Your task to perform on an android device: turn pop-ups off in chrome Image 0: 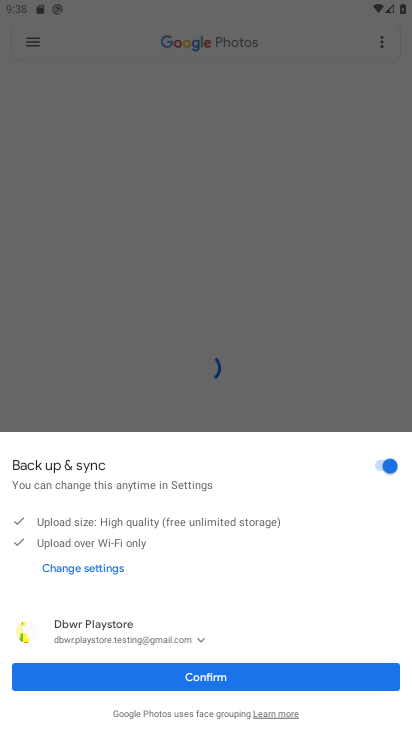
Step 0: press home button
Your task to perform on an android device: turn pop-ups off in chrome Image 1: 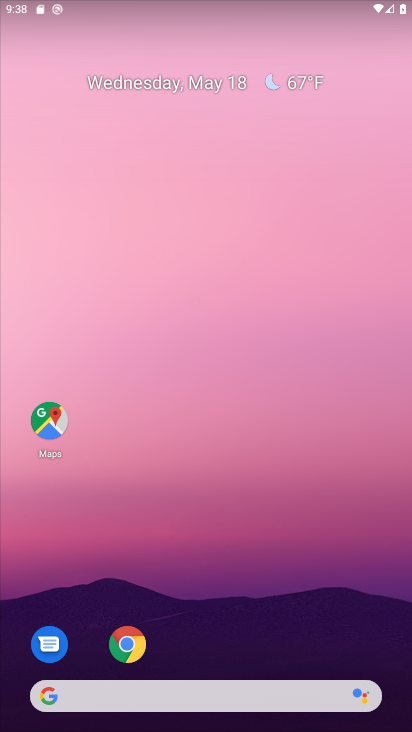
Step 1: click (129, 643)
Your task to perform on an android device: turn pop-ups off in chrome Image 2: 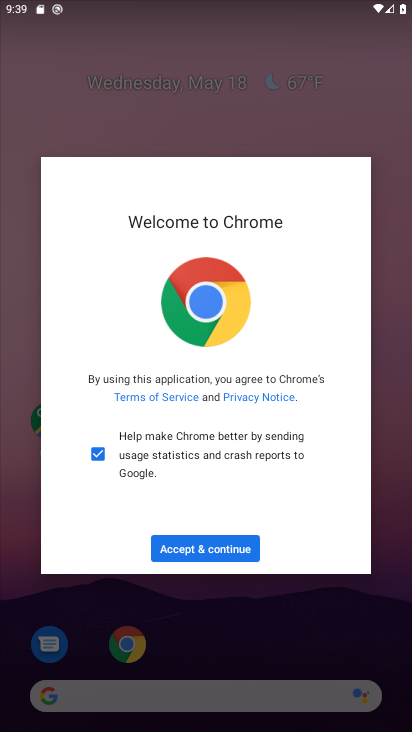
Step 2: click (216, 550)
Your task to perform on an android device: turn pop-ups off in chrome Image 3: 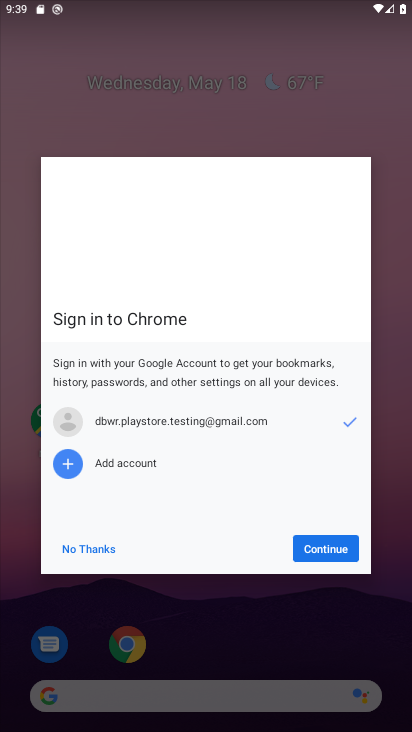
Step 3: click (321, 549)
Your task to perform on an android device: turn pop-ups off in chrome Image 4: 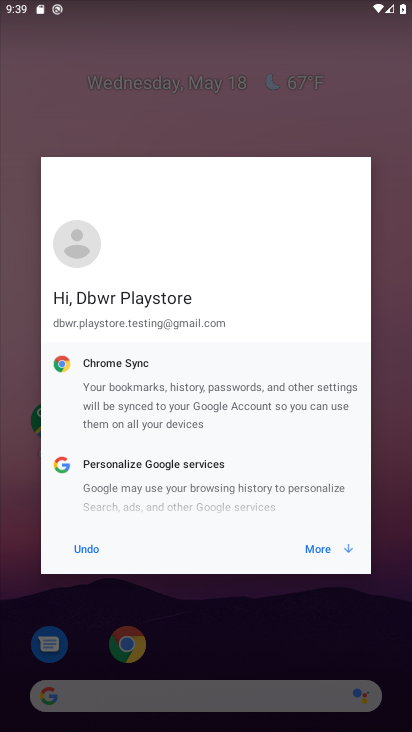
Step 4: click (321, 549)
Your task to perform on an android device: turn pop-ups off in chrome Image 5: 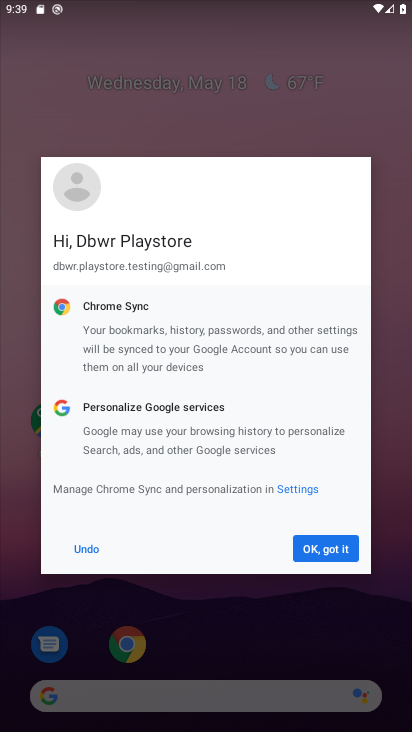
Step 5: click (321, 549)
Your task to perform on an android device: turn pop-ups off in chrome Image 6: 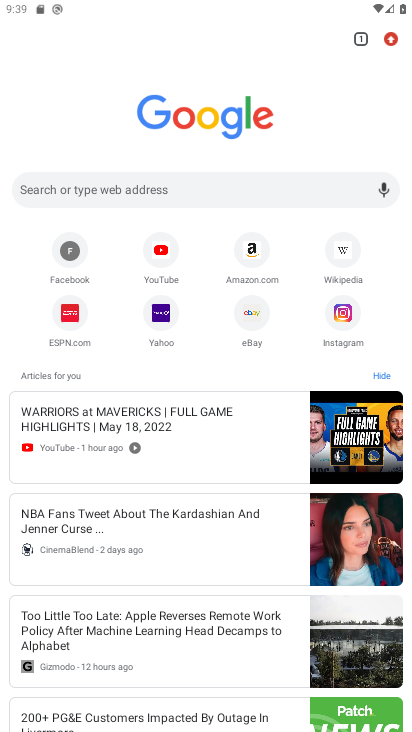
Step 6: click (391, 38)
Your task to perform on an android device: turn pop-ups off in chrome Image 7: 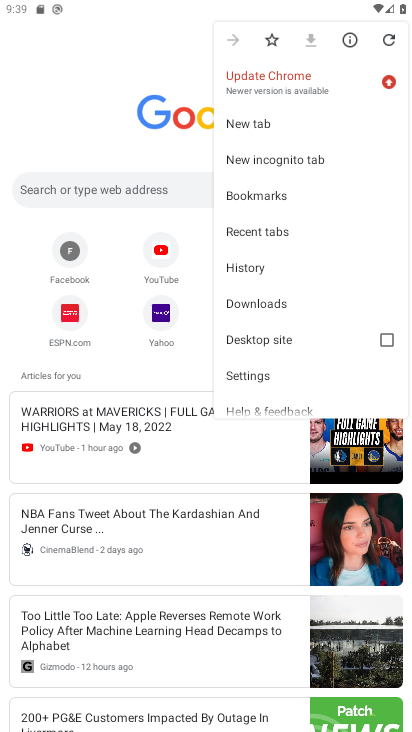
Step 7: click (254, 376)
Your task to perform on an android device: turn pop-ups off in chrome Image 8: 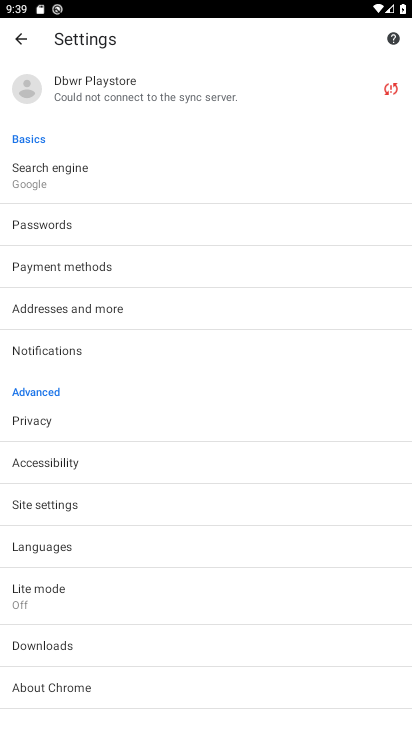
Step 8: click (63, 507)
Your task to perform on an android device: turn pop-ups off in chrome Image 9: 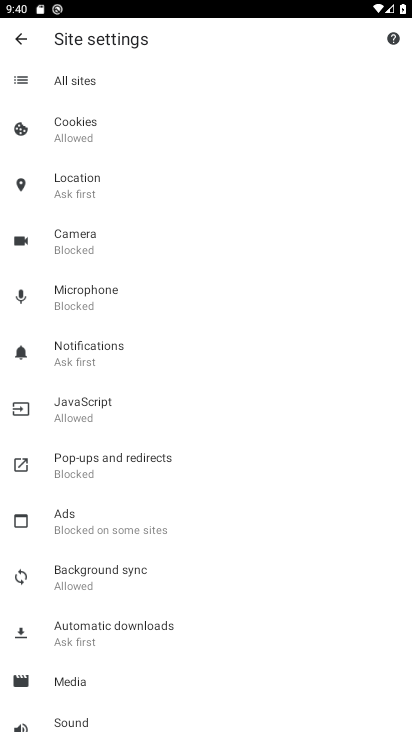
Step 9: click (112, 458)
Your task to perform on an android device: turn pop-ups off in chrome Image 10: 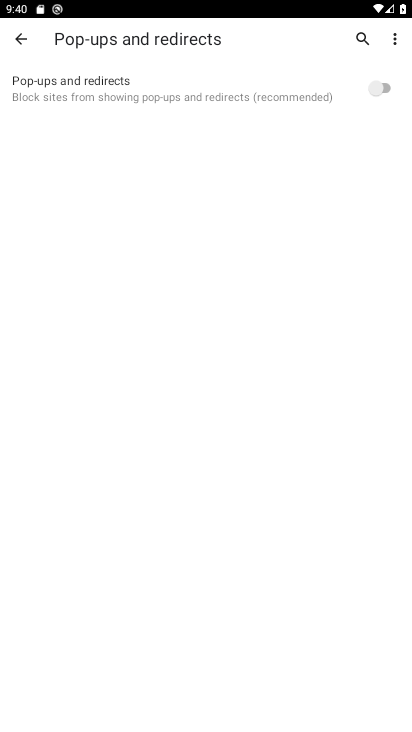
Step 10: task complete